Your task to perform on an android device: turn on notifications settings in the gmail app Image 0: 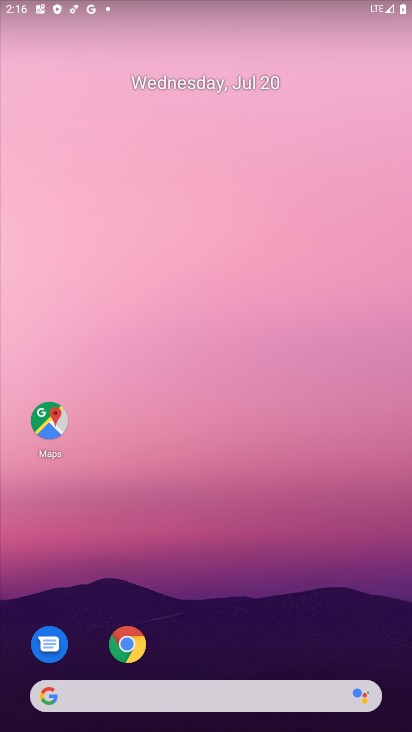
Step 0: drag from (266, 700) to (378, 24)
Your task to perform on an android device: turn on notifications settings in the gmail app Image 1: 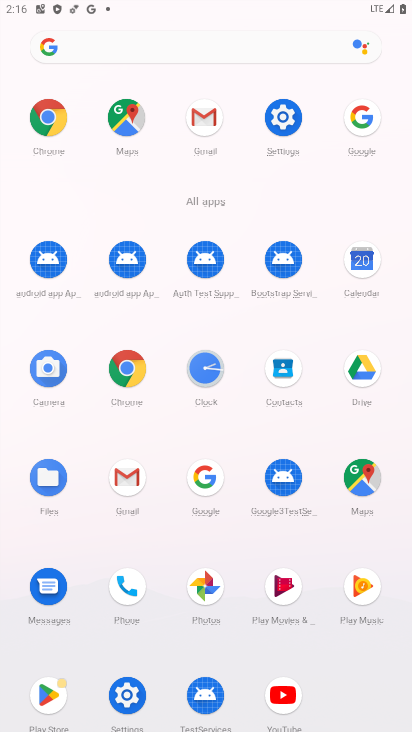
Step 1: click (203, 115)
Your task to perform on an android device: turn on notifications settings in the gmail app Image 2: 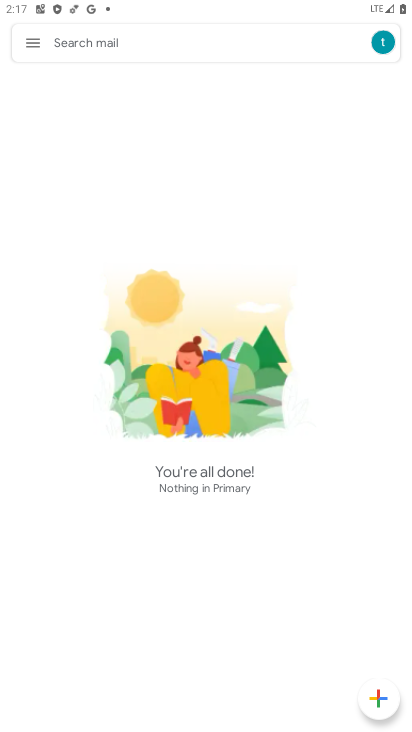
Step 2: click (34, 42)
Your task to perform on an android device: turn on notifications settings in the gmail app Image 3: 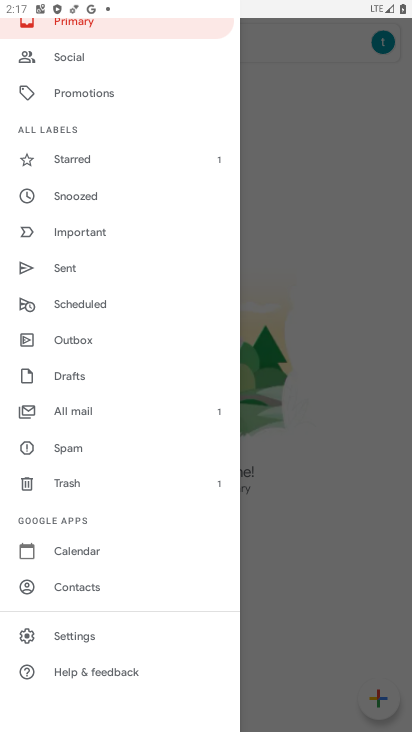
Step 3: click (69, 637)
Your task to perform on an android device: turn on notifications settings in the gmail app Image 4: 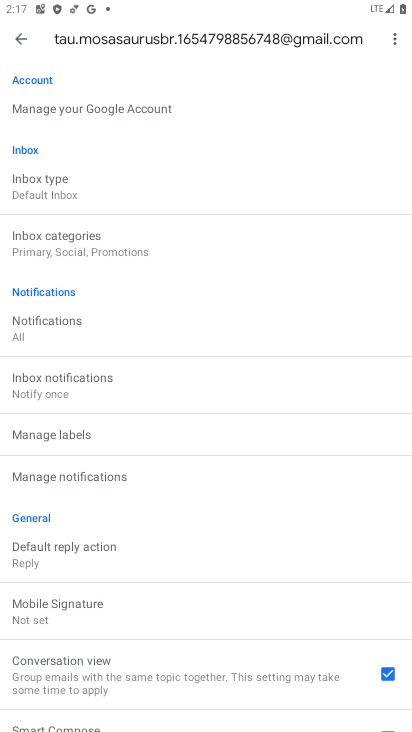
Step 4: click (79, 481)
Your task to perform on an android device: turn on notifications settings in the gmail app Image 5: 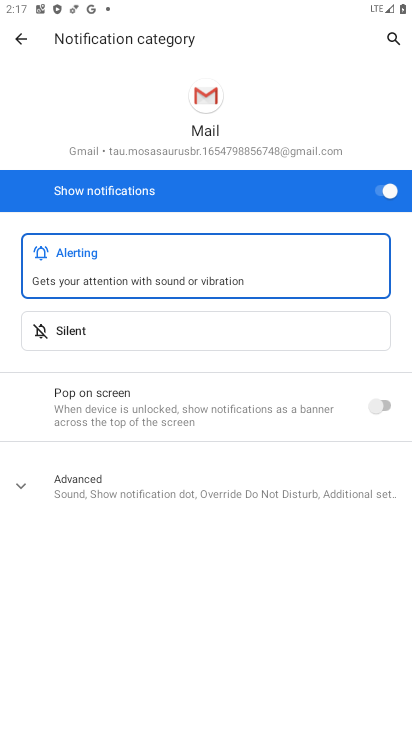
Step 5: task complete